Your task to perform on an android device: What's the weather? Image 0: 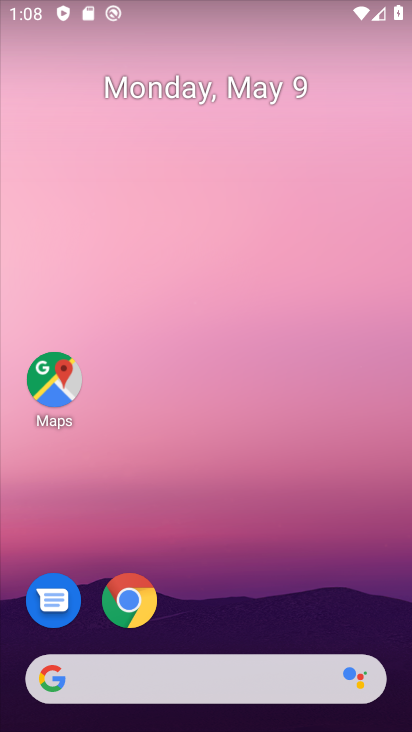
Step 0: click (57, 683)
Your task to perform on an android device: What's the weather? Image 1: 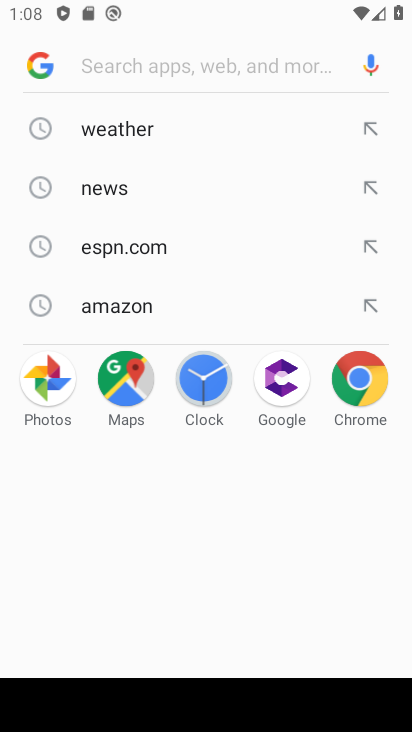
Step 1: click (127, 125)
Your task to perform on an android device: What's the weather? Image 2: 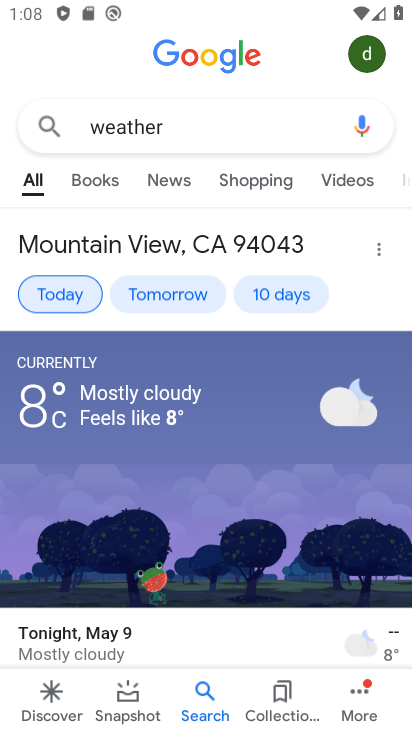
Step 2: task complete